Your task to perform on an android device: change notifications settings Image 0: 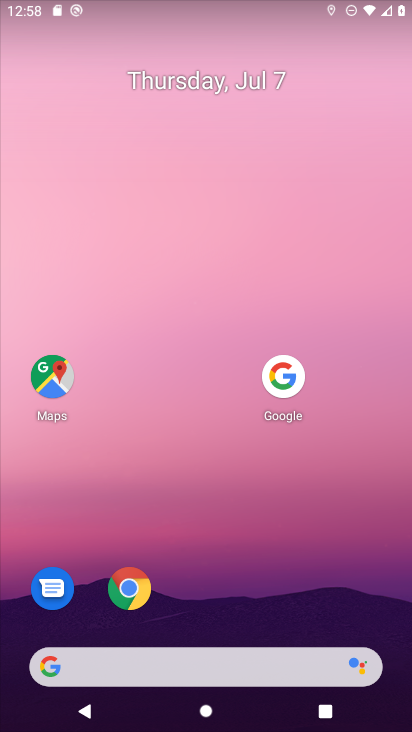
Step 0: drag from (232, 658) to (357, 31)
Your task to perform on an android device: change notifications settings Image 1: 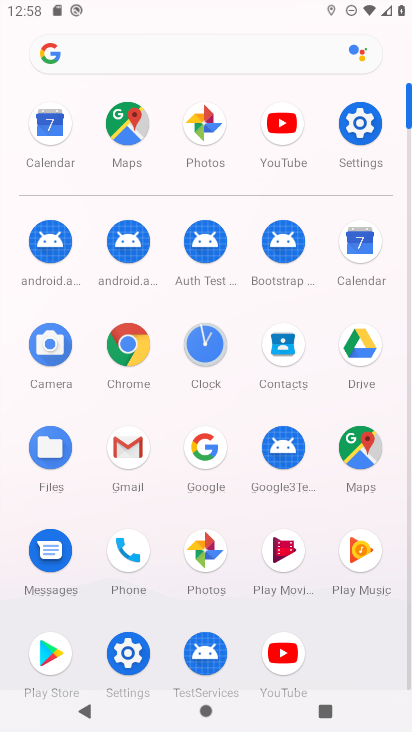
Step 1: click (361, 122)
Your task to perform on an android device: change notifications settings Image 2: 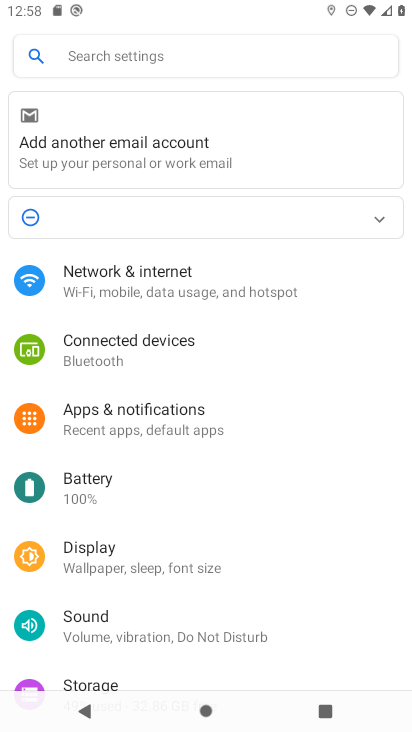
Step 2: click (173, 410)
Your task to perform on an android device: change notifications settings Image 3: 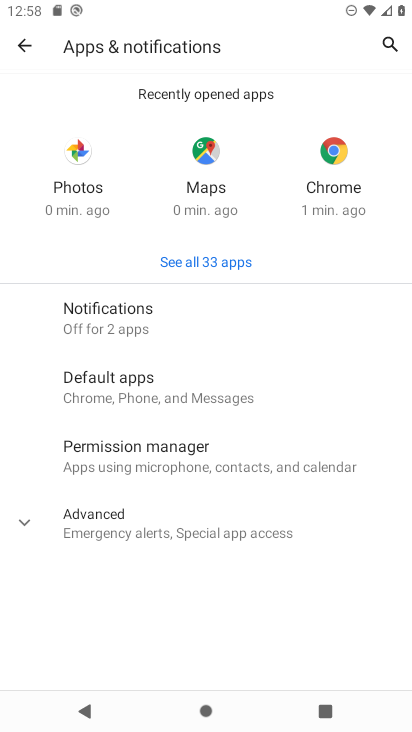
Step 3: click (118, 303)
Your task to perform on an android device: change notifications settings Image 4: 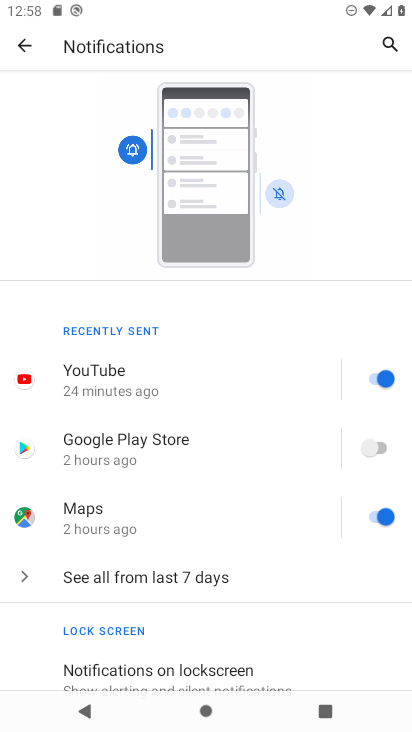
Step 4: click (375, 450)
Your task to perform on an android device: change notifications settings Image 5: 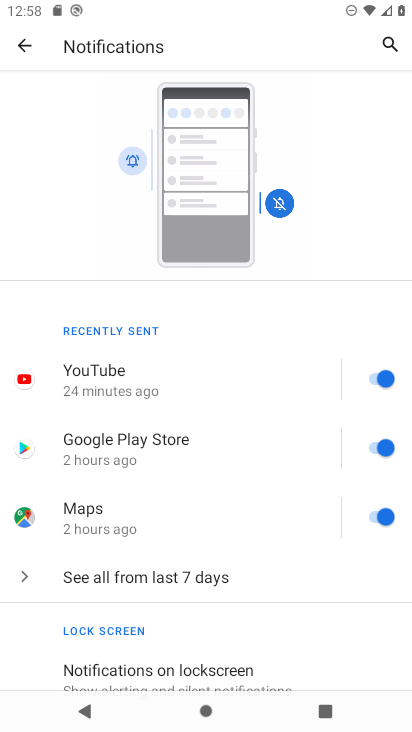
Step 5: task complete